Your task to perform on an android device: find photos in the google photos app Image 0: 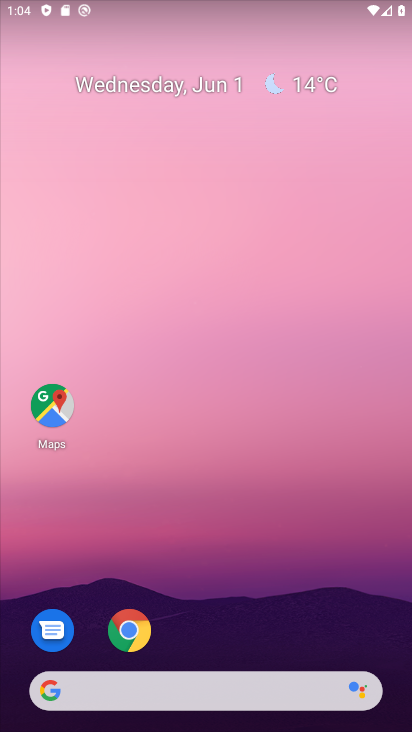
Step 0: press home button
Your task to perform on an android device: find photos in the google photos app Image 1: 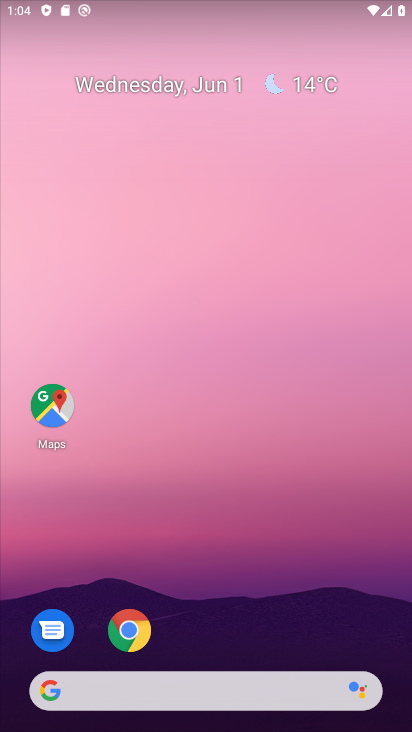
Step 1: drag from (220, 643) to (272, 104)
Your task to perform on an android device: find photos in the google photos app Image 2: 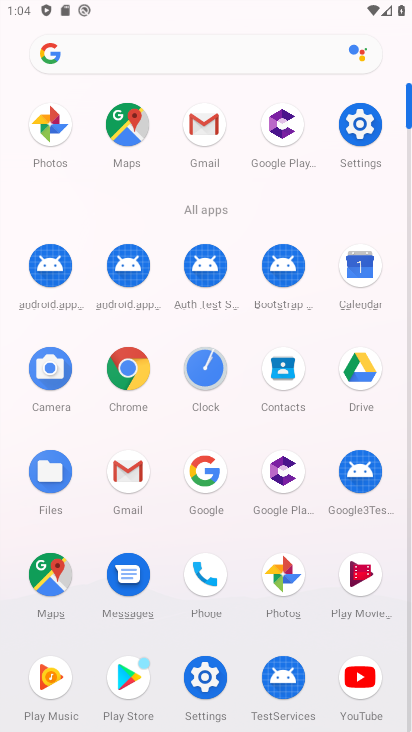
Step 2: click (290, 563)
Your task to perform on an android device: find photos in the google photos app Image 3: 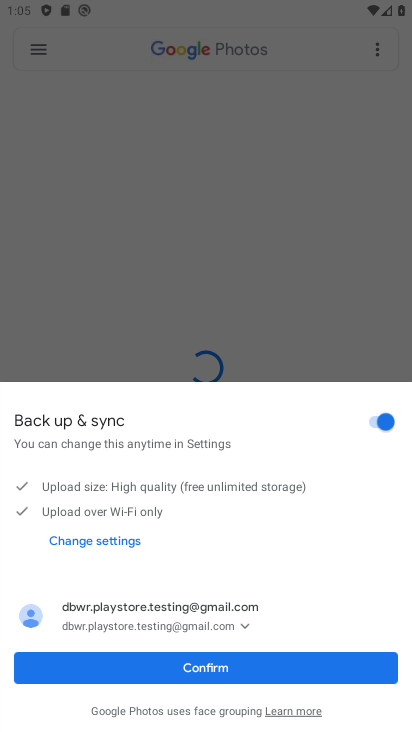
Step 3: click (213, 668)
Your task to perform on an android device: find photos in the google photos app Image 4: 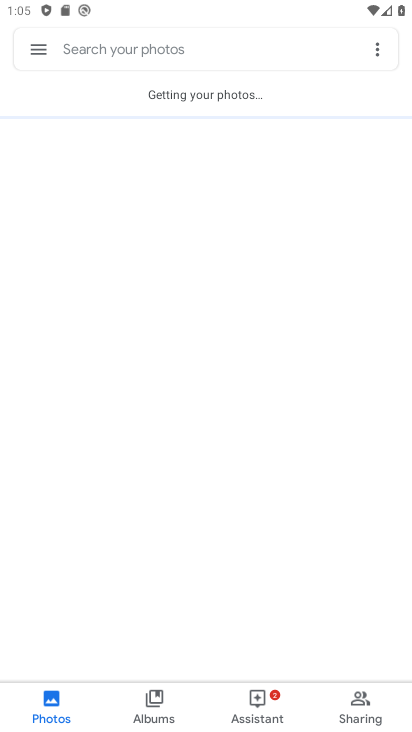
Step 4: task complete